Your task to perform on an android device: What's the weather today? Image 0: 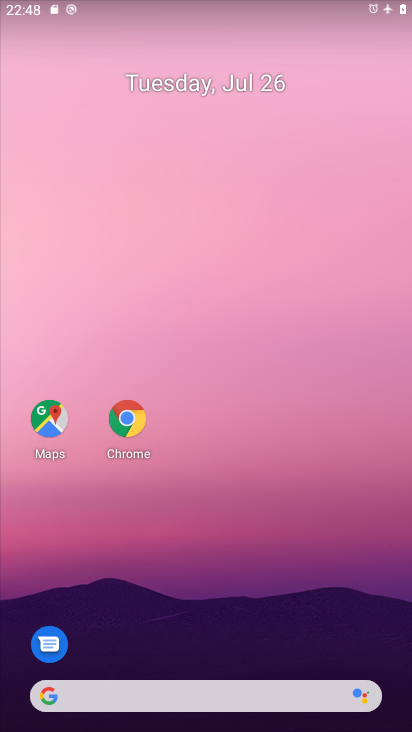
Step 0: click (133, 424)
Your task to perform on an android device: What's the weather today? Image 1: 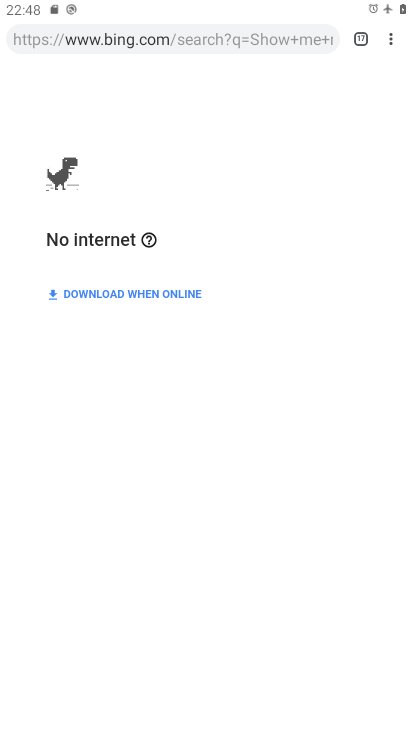
Step 1: click (394, 42)
Your task to perform on an android device: What's the weather today? Image 2: 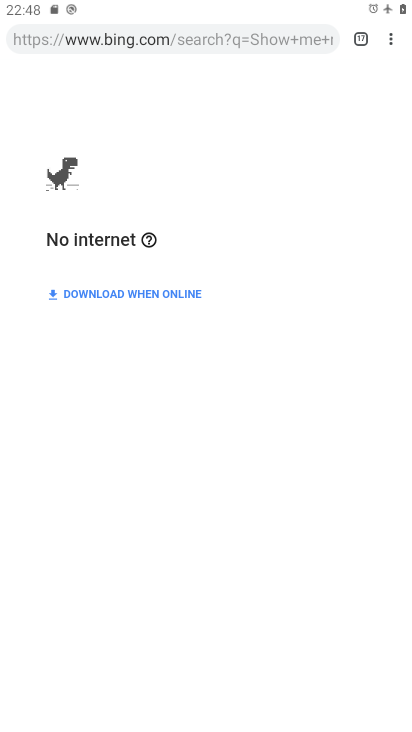
Step 2: click (394, 42)
Your task to perform on an android device: What's the weather today? Image 3: 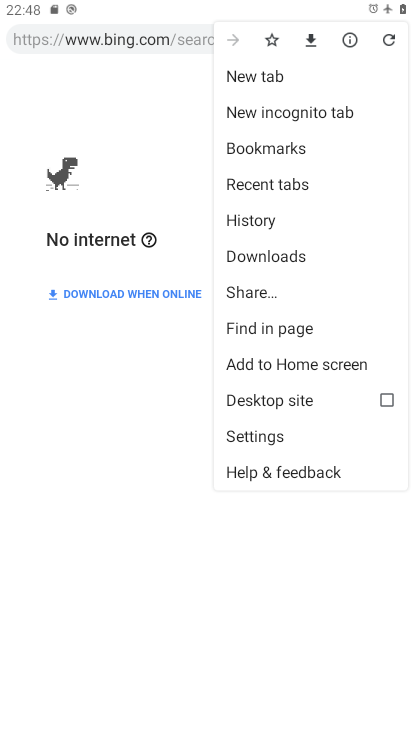
Step 3: click (282, 73)
Your task to perform on an android device: What's the weather today? Image 4: 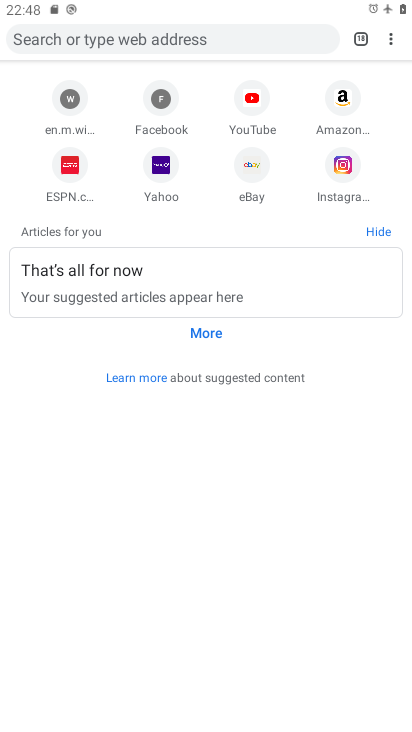
Step 4: click (199, 35)
Your task to perform on an android device: What's the weather today? Image 5: 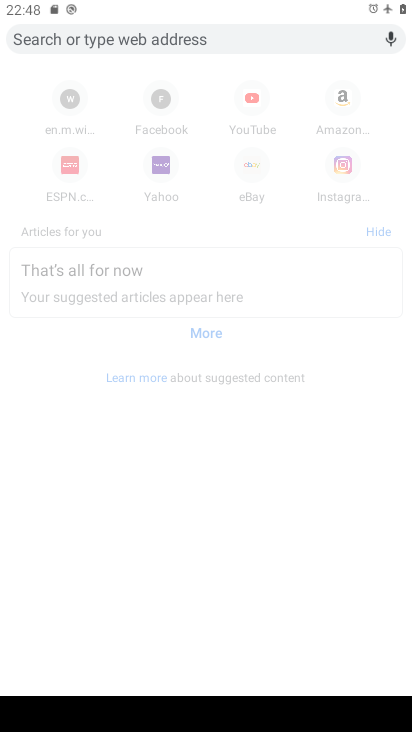
Step 5: type "What's the weather today "
Your task to perform on an android device: What's the weather today? Image 6: 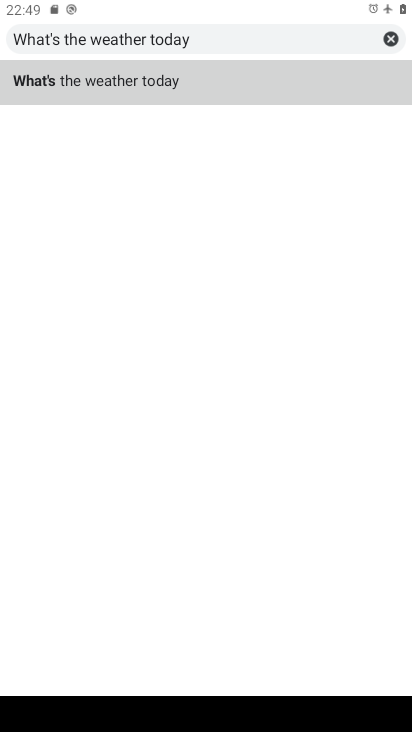
Step 6: click (263, 78)
Your task to perform on an android device: What's the weather today? Image 7: 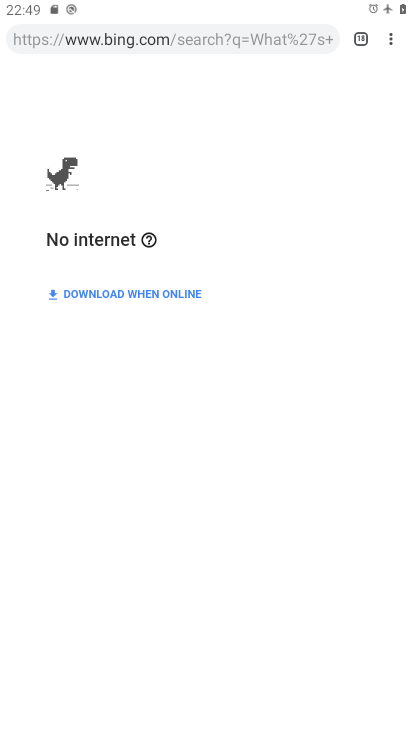
Step 7: task complete